Your task to perform on an android device: Open CNN.com Image 0: 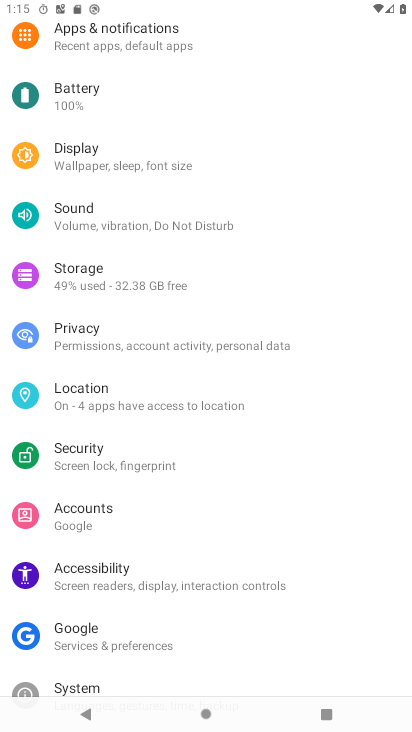
Step 0: press home button
Your task to perform on an android device: Open CNN.com Image 1: 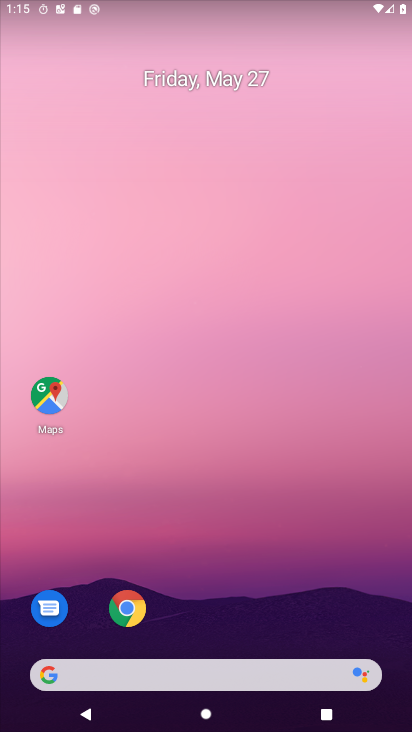
Step 1: click (128, 616)
Your task to perform on an android device: Open CNN.com Image 2: 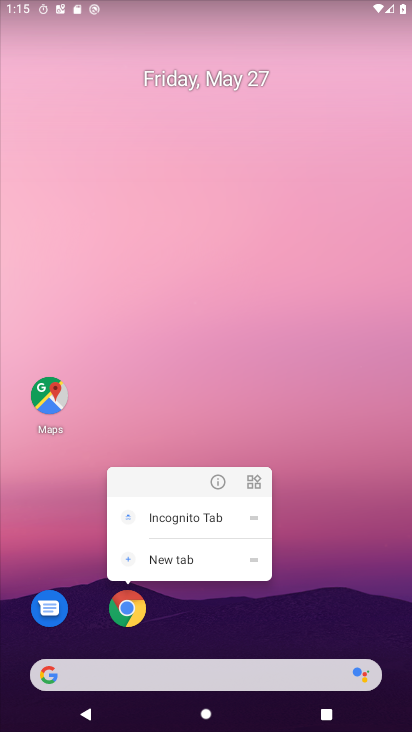
Step 2: click (128, 607)
Your task to perform on an android device: Open CNN.com Image 3: 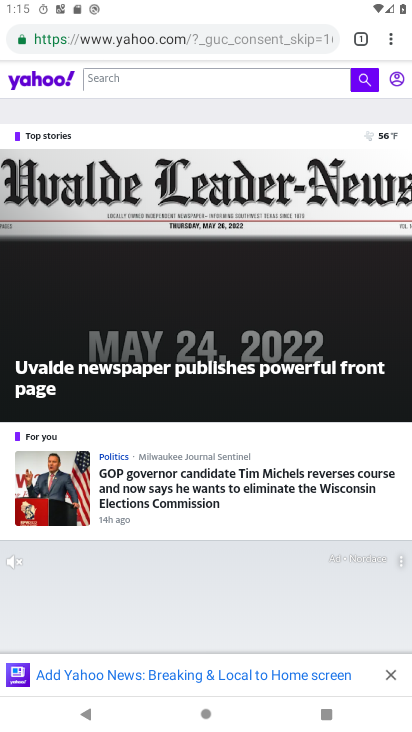
Step 3: click (321, 42)
Your task to perform on an android device: Open CNN.com Image 4: 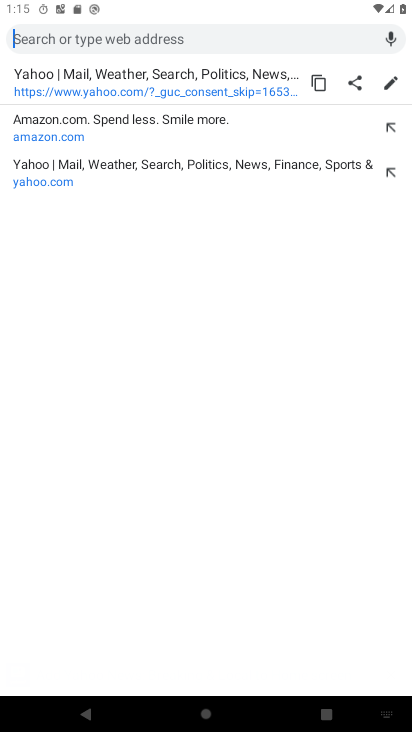
Step 4: type "CNN.com"
Your task to perform on an android device: Open CNN.com Image 5: 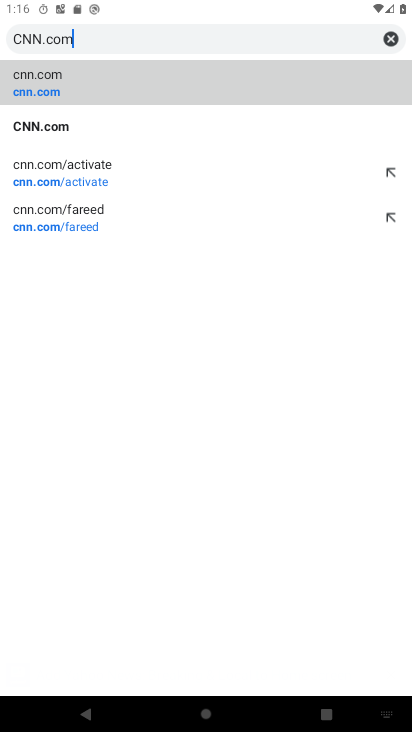
Step 5: click (25, 126)
Your task to perform on an android device: Open CNN.com Image 6: 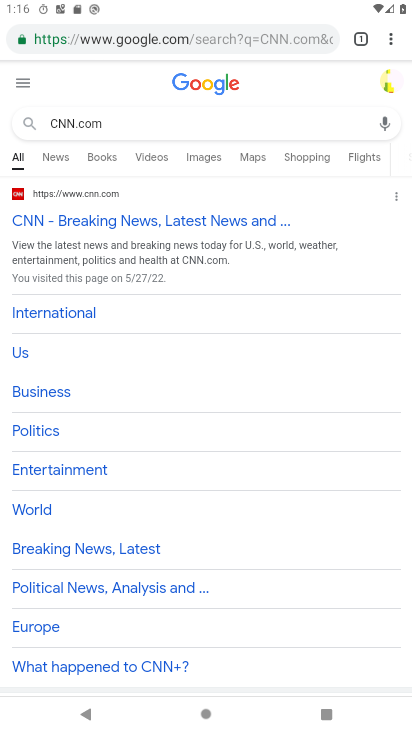
Step 6: task complete